Your task to perform on an android device: create a new album in the google photos Image 0: 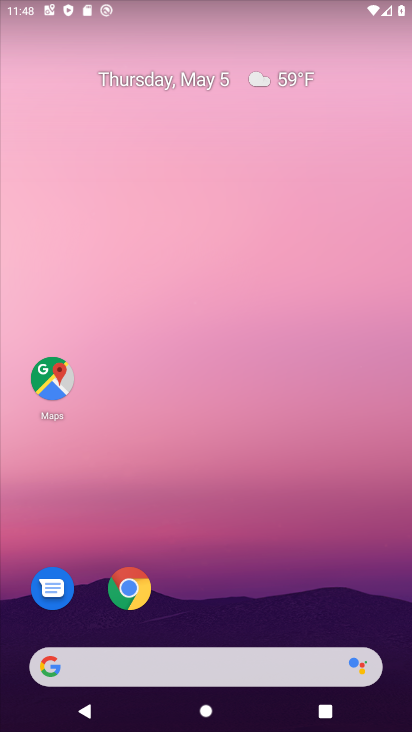
Step 0: drag from (326, 571) to (273, 52)
Your task to perform on an android device: create a new album in the google photos Image 1: 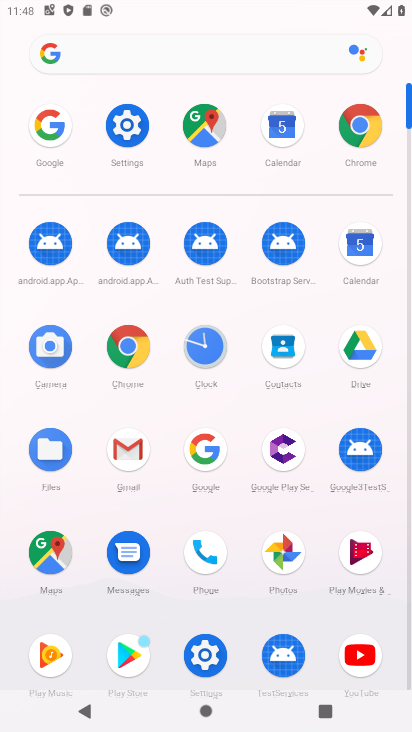
Step 1: click (282, 559)
Your task to perform on an android device: create a new album in the google photos Image 2: 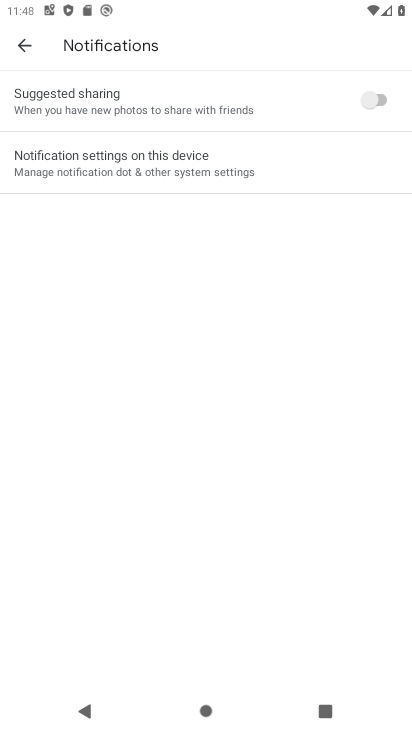
Step 2: click (27, 37)
Your task to perform on an android device: create a new album in the google photos Image 3: 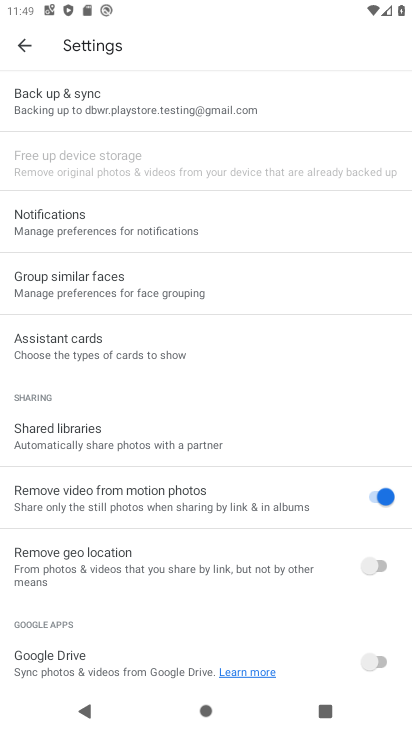
Step 3: click (19, 37)
Your task to perform on an android device: create a new album in the google photos Image 4: 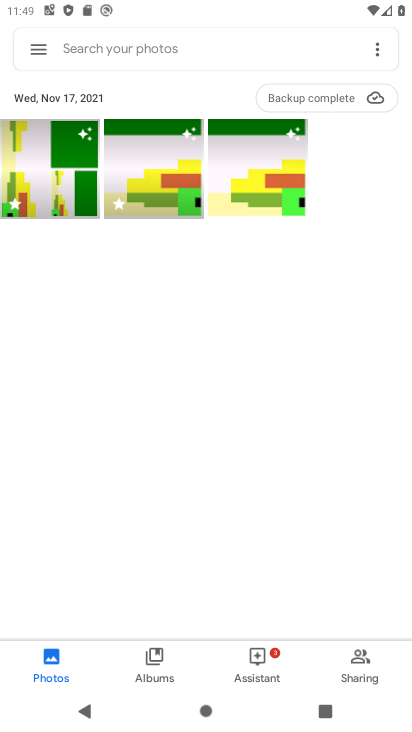
Step 4: click (155, 653)
Your task to perform on an android device: create a new album in the google photos Image 5: 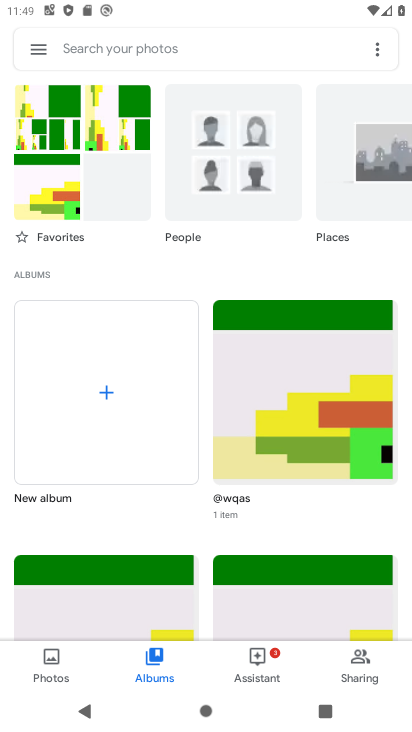
Step 5: click (107, 385)
Your task to perform on an android device: create a new album in the google photos Image 6: 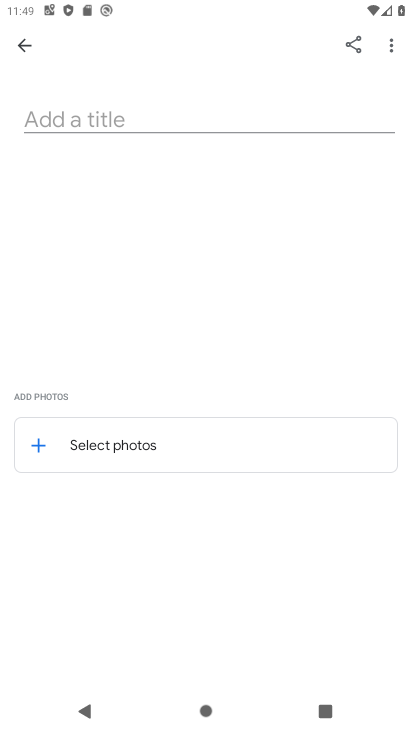
Step 6: type "Narmada River"
Your task to perform on an android device: create a new album in the google photos Image 7: 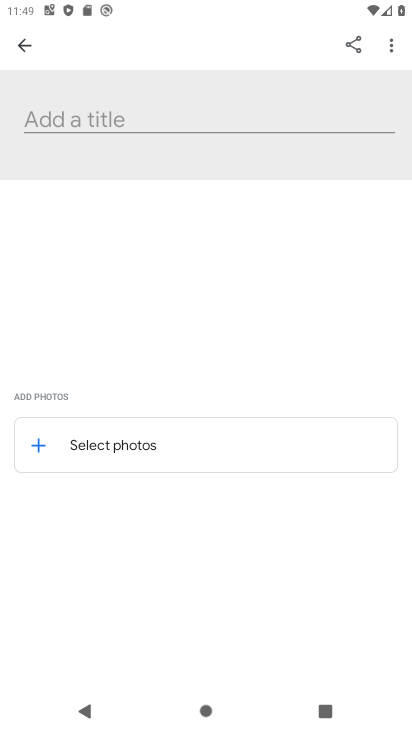
Step 7: click (147, 101)
Your task to perform on an android device: create a new album in the google photos Image 8: 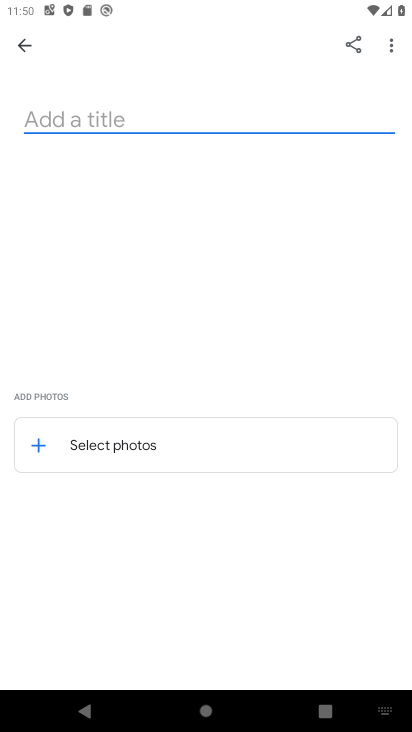
Step 8: type "Narmada River"
Your task to perform on an android device: create a new album in the google photos Image 9: 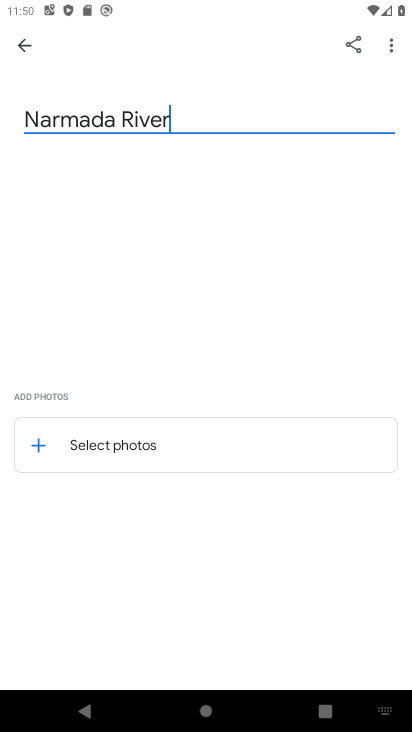
Step 9: click (178, 439)
Your task to perform on an android device: create a new album in the google photos Image 10: 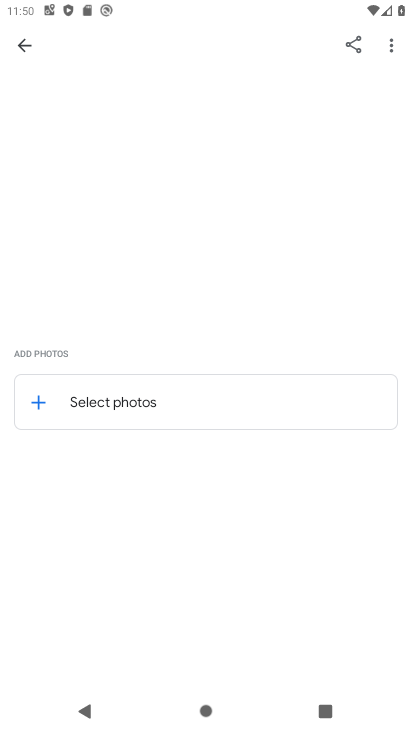
Step 10: click (37, 394)
Your task to perform on an android device: create a new album in the google photos Image 11: 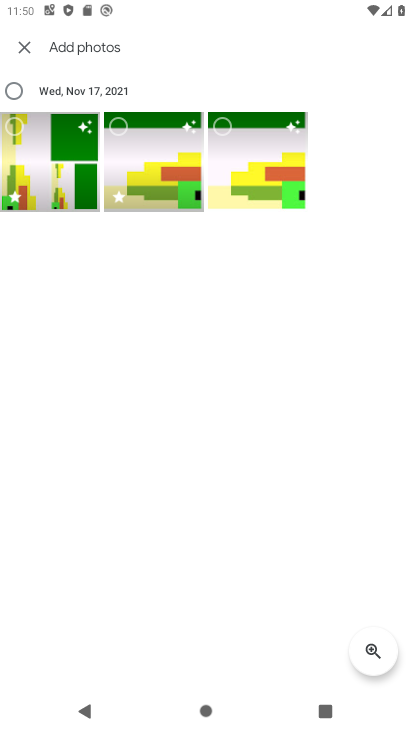
Step 11: click (223, 127)
Your task to perform on an android device: create a new album in the google photos Image 12: 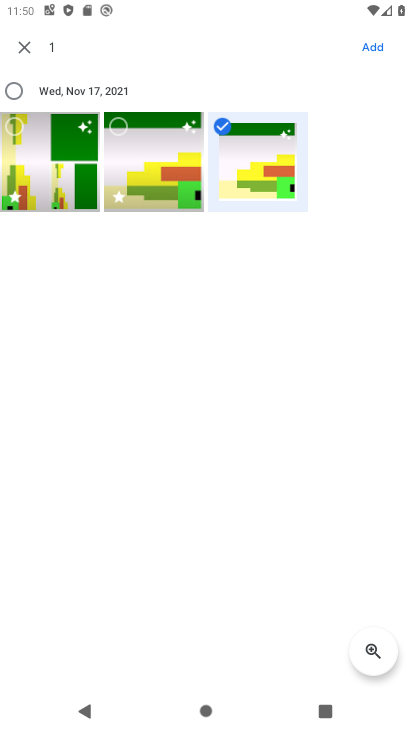
Step 12: click (375, 40)
Your task to perform on an android device: create a new album in the google photos Image 13: 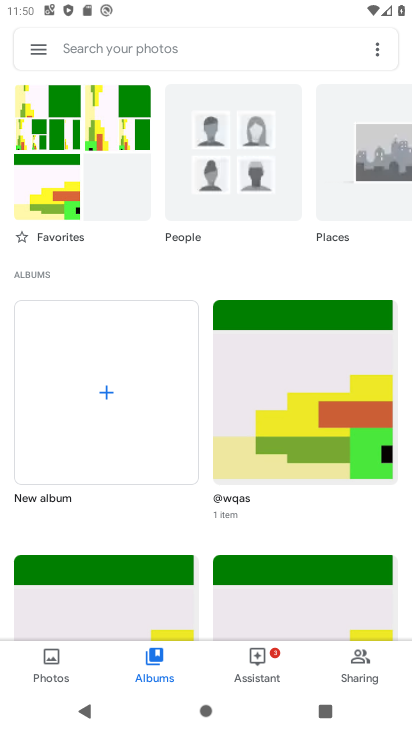
Step 13: task complete